Your task to perform on an android device: create a new album in the google photos Image 0: 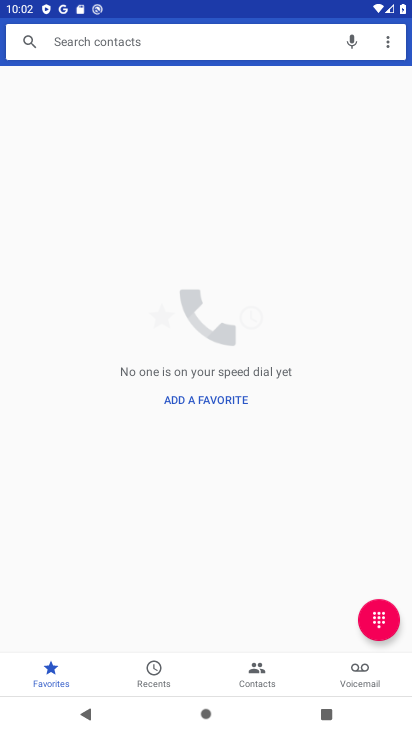
Step 0: press home button
Your task to perform on an android device: create a new album in the google photos Image 1: 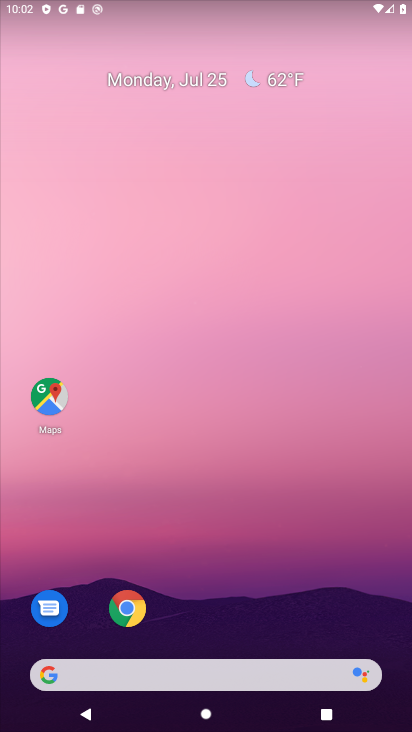
Step 1: drag from (295, 567) to (309, 183)
Your task to perform on an android device: create a new album in the google photos Image 2: 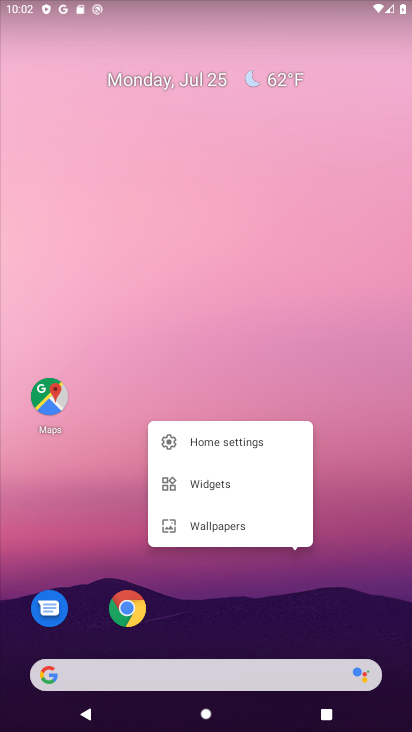
Step 2: click (307, 197)
Your task to perform on an android device: create a new album in the google photos Image 3: 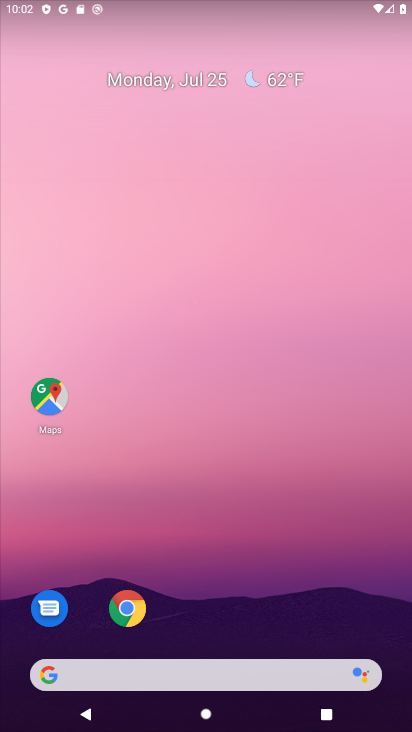
Step 3: drag from (235, 604) to (269, 102)
Your task to perform on an android device: create a new album in the google photos Image 4: 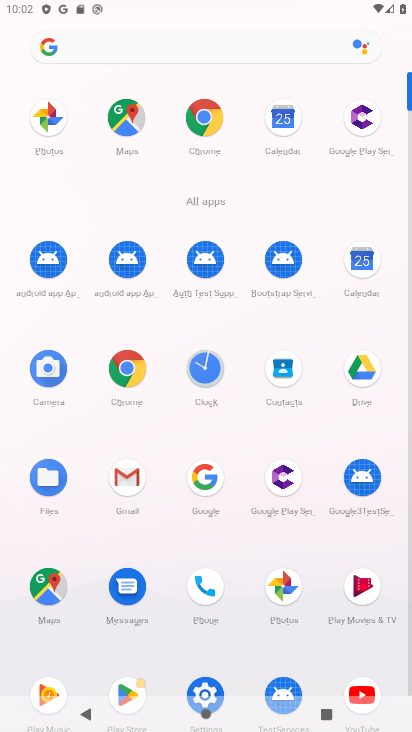
Step 4: click (286, 587)
Your task to perform on an android device: create a new album in the google photos Image 5: 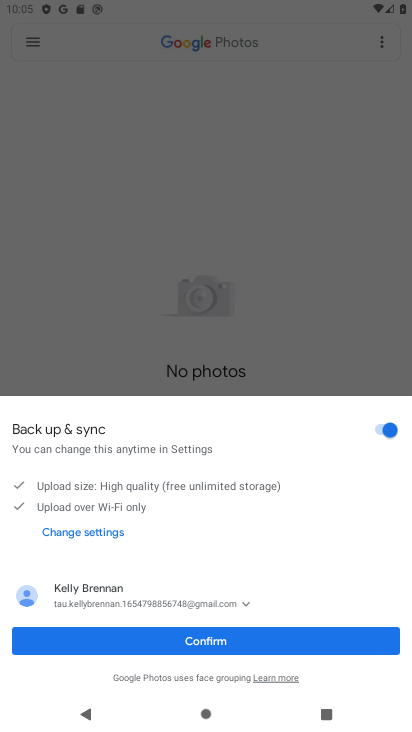
Step 5: press home button
Your task to perform on an android device: create a new album in the google photos Image 6: 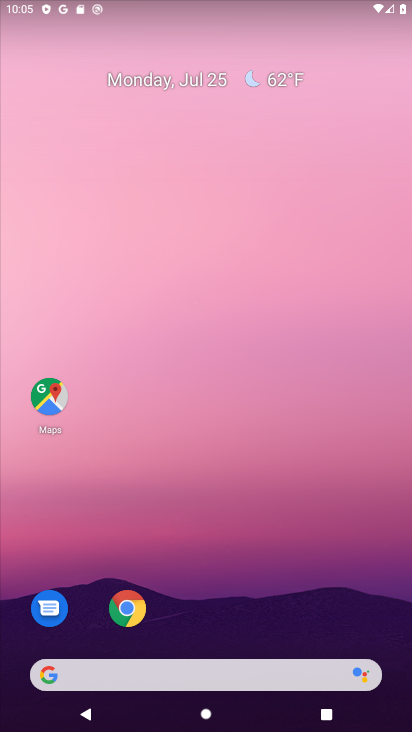
Step 6: drag from (241, 623) to (235, 338)
Your task to perform on an android device: create a new album in the google photos Image 7: 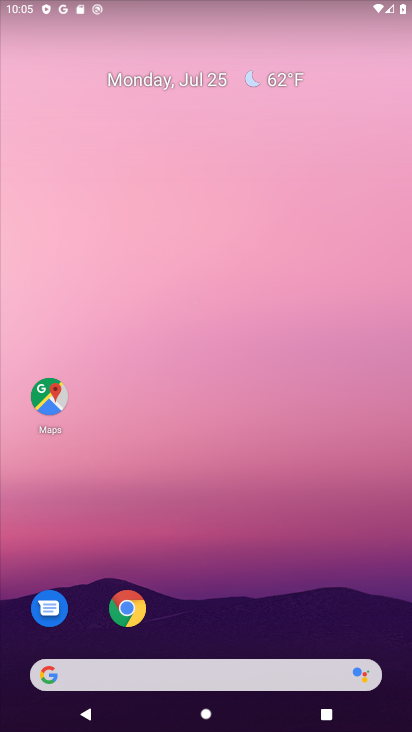
Step 7: drag from (244, 587) to (230, 200)
Your task to perform on an android device: create a new album in the google photos Image 8: 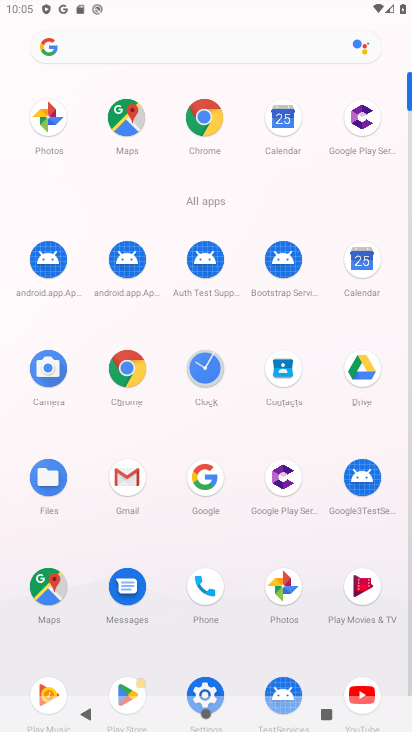
Step 8: click (287, 585)
Your task to perform on an android device: create a new album in the google photos Image 9: 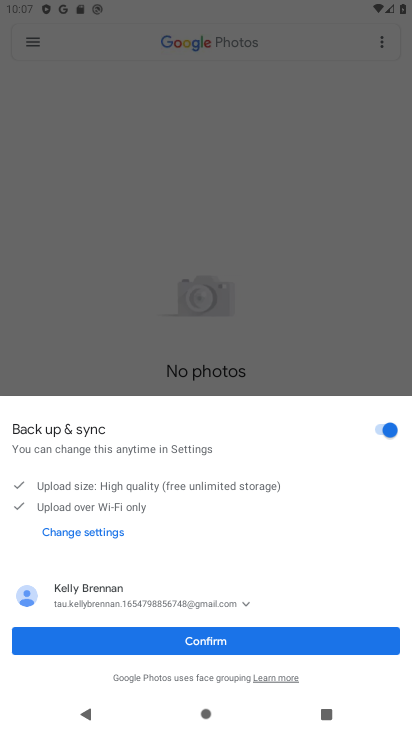
Step 9: press home button
Your task to perform on an android device: create a new album in the google photos Image 10: 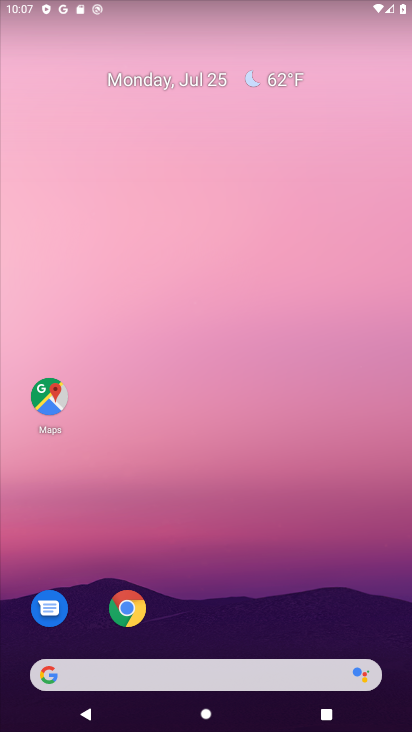
Step 10: drag from (314, 518) to (337, 186)
Your task to perform on an android device: create a new album in the google photos Image 11: 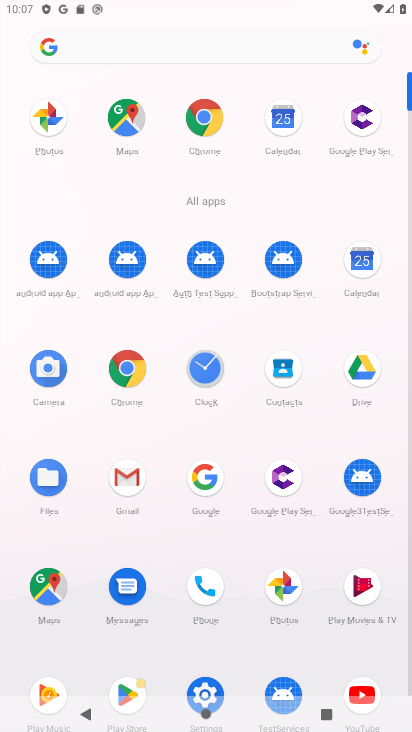
Step 11: click (286, 582)
Your task to perform on an android device: create a new album in the google photos Image 12: 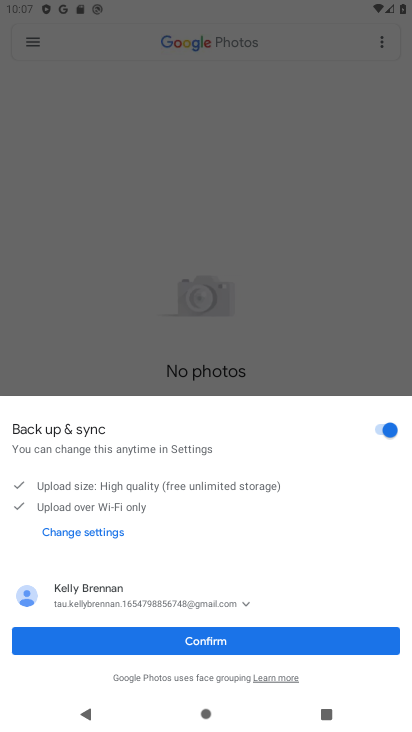
Step 12: click (195, 647)
Your task to perform on an android device: create a new album in the google photos Image 13: 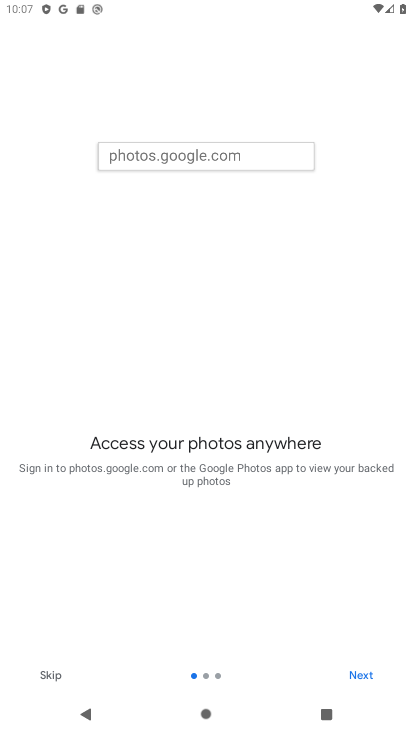
Step 13: task complete